Your task to perform on an android device: turn on airplane mode Image 0: 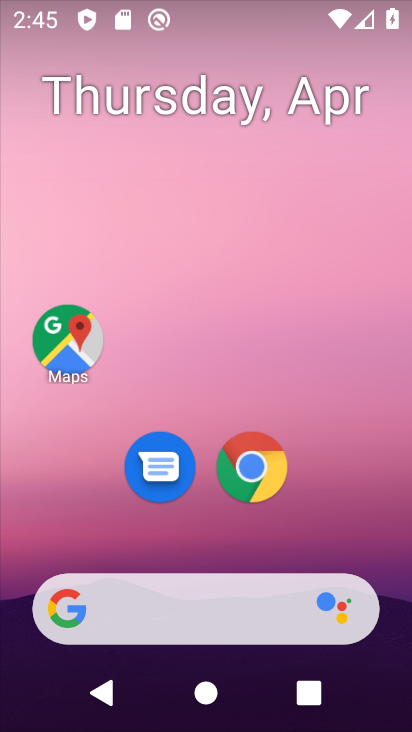
Step 0: drag from (343, 512) to (359, 140)
Your task to perform on an android device: turn on airplane mode Image 1: 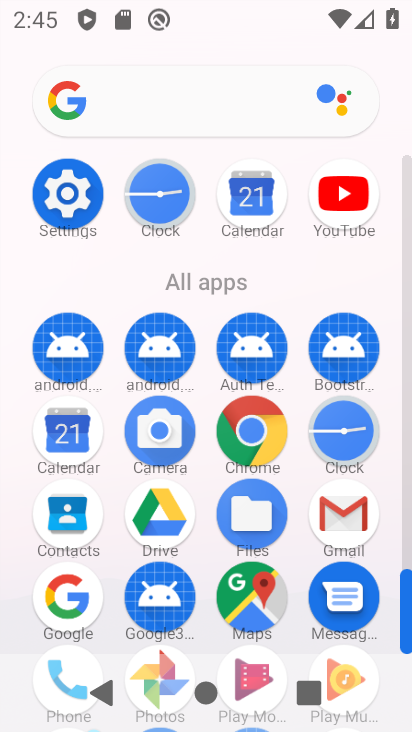
Step 1: click (68, 199)
Your task to perform on an android device: turn on airplane mode Image 2: 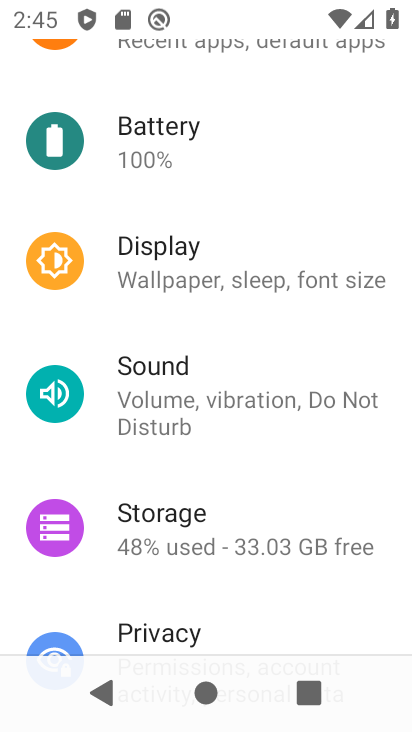
Step 2: drag from (241, 150) to (265, 595)
Your task to perform on an android device: turn on airplane mode Image 3: 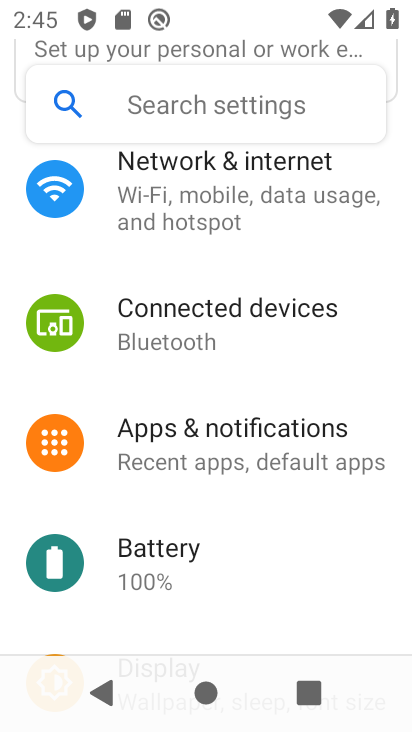
Step 3: drag from (254, 252) to (263, 565)
Your task to perform on an android device: turn on airplane mode Image 4: 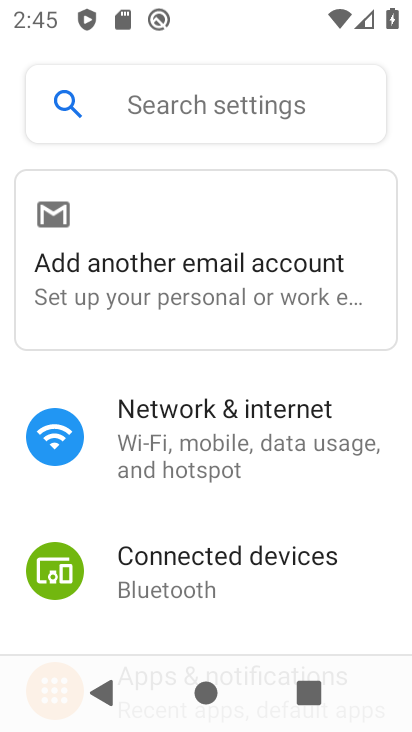
Step 4: click (266, 447)
Your task to perform on an android device: turn on airplane mode Image 5: 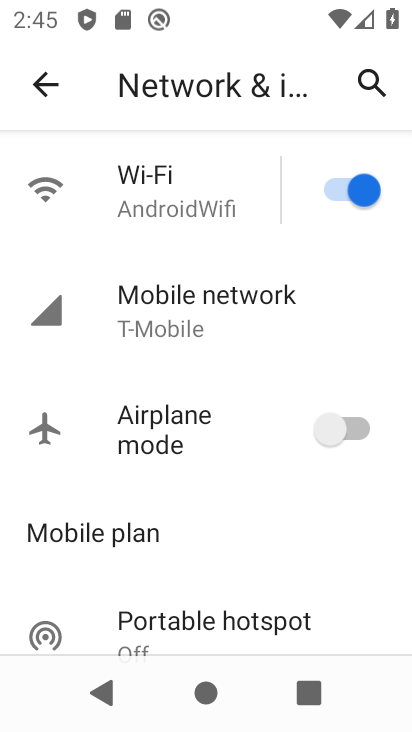
Step 5: click (339, 428)
Your task to perform on an android device: turn on airplane mode Image 6: 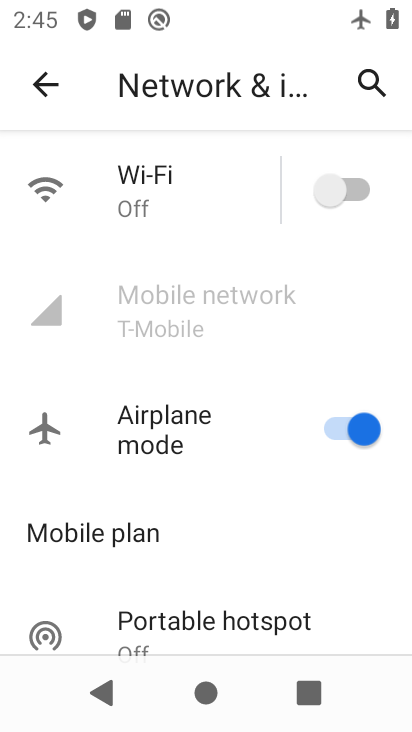
Step 6: task complete